Your task to perform on an android device: Open Android settings Image 0: 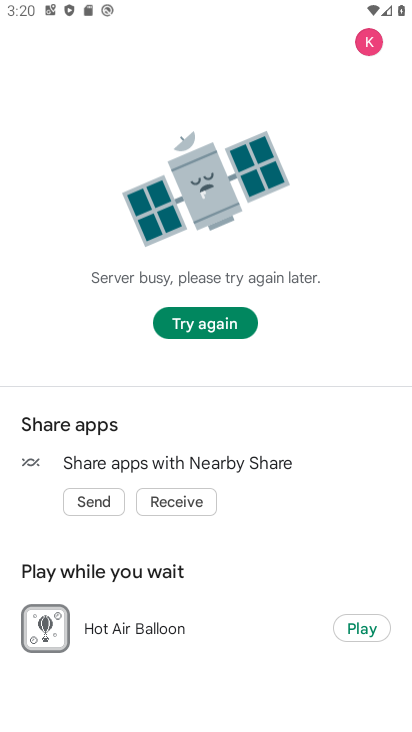
Step 0: press home button
Your task to perform on an android device: Open Android settings Image 1: 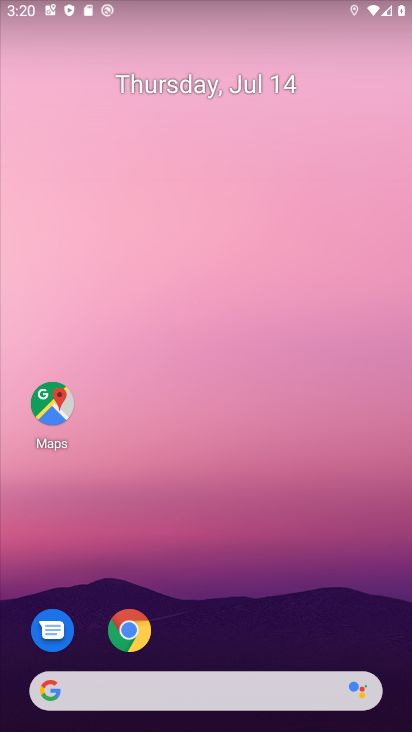
Step 1: drag from (291, 630) to (161, 133)
Your task to perform on an android device: Open Android settings Image 2: 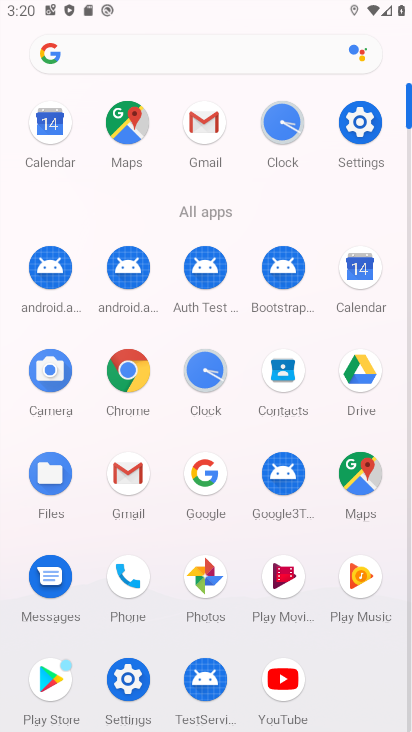
Step 2: click (120, 682)
Your task to perform on an android device: Open Android settings Image 3: 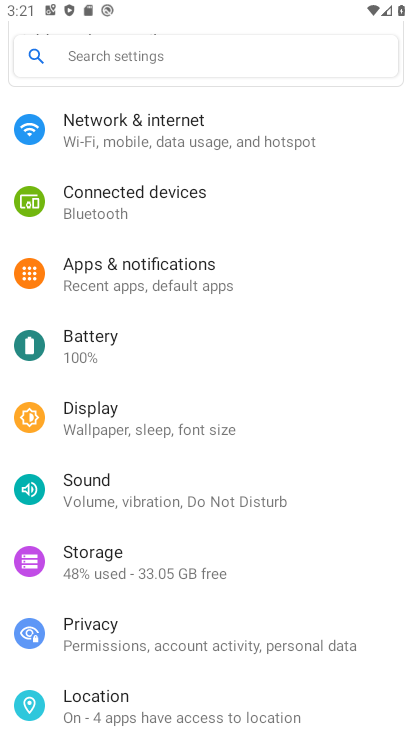
Step 3: task complete